Your task to perform on an android device: Set the phone to "Do not disturb". Image 0: 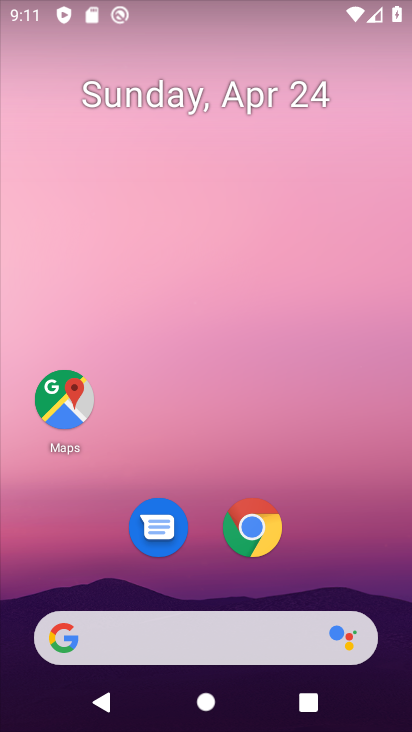
Step 0: click (361, 578)
Your task to perform on an android device: Set the phone to "Do not disturb". Image 1: 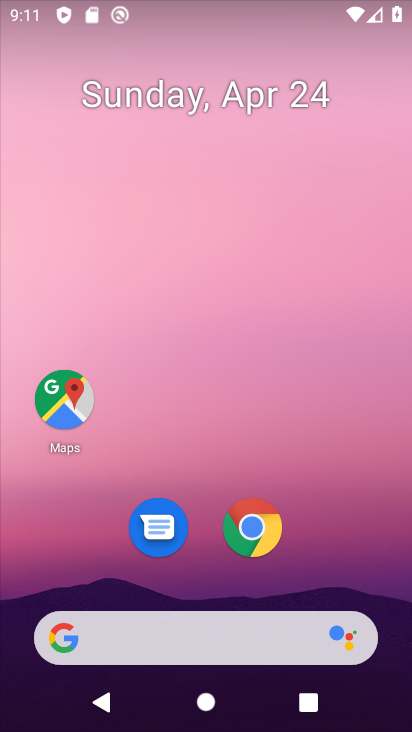
Step 1: drag from (261, 230) to (233, 100)
Your task to perform on an android device: Set the phone to "Do not disturb". Image 2: 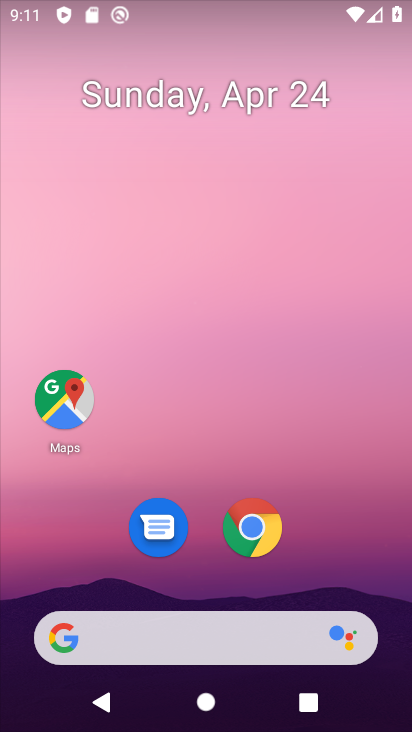
Step 2: drag from (401, 630) to (249, 46)
Your task to perform on an android device: Set the phone to "Do not disturb". Image 3: 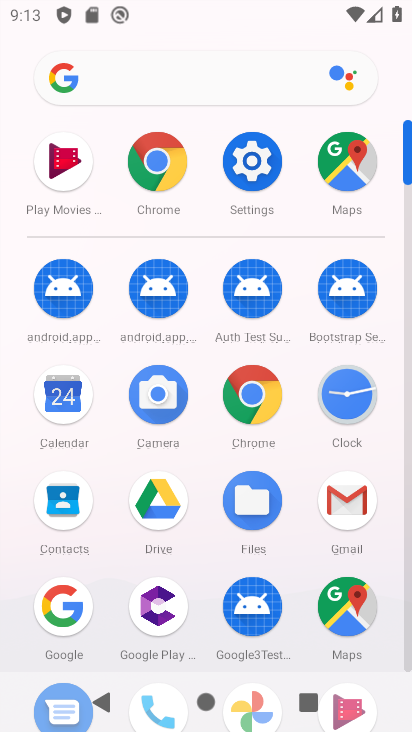
Step 3: drag from (210, 1) to (241, 523)
Your task to perform on an android device: Set the phone to "Do not disturb". Image 4: 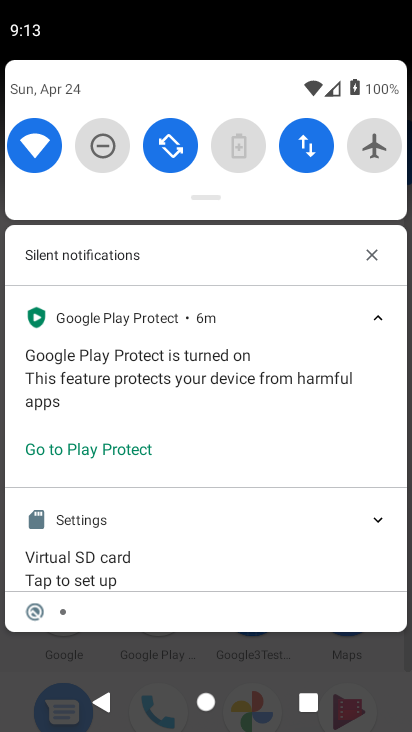
Step 4: click (98, 136)
Your task to perform on an android device: Set the phone to "Do not disturb". Image 5: 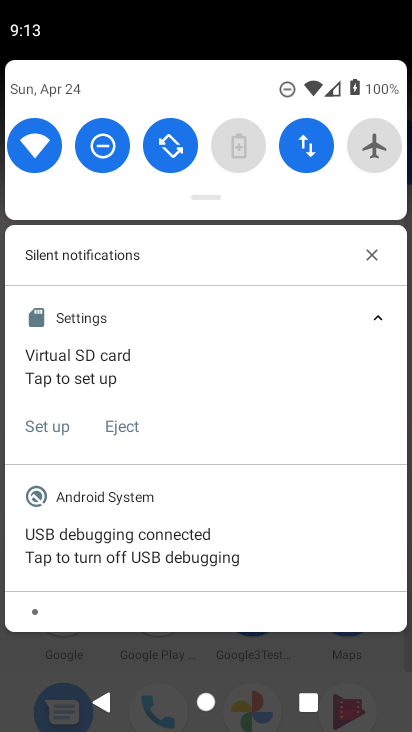
Step 5: task complete